Your task to perform on an android device: Open Reddit.com Image 0: 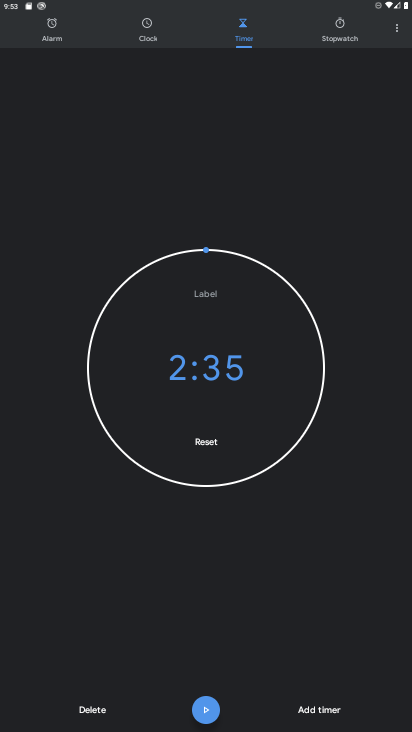
Step 0: press home button
Your task to perform on an android device: Open Reddit.com Image 1: 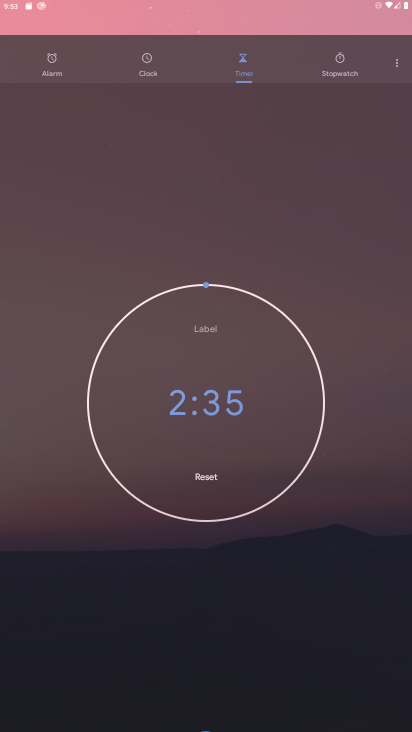
Step 1: drag from (201, 618) to (282, 144)
Your task to perform on an android device: Open Reddit.com Image 2: 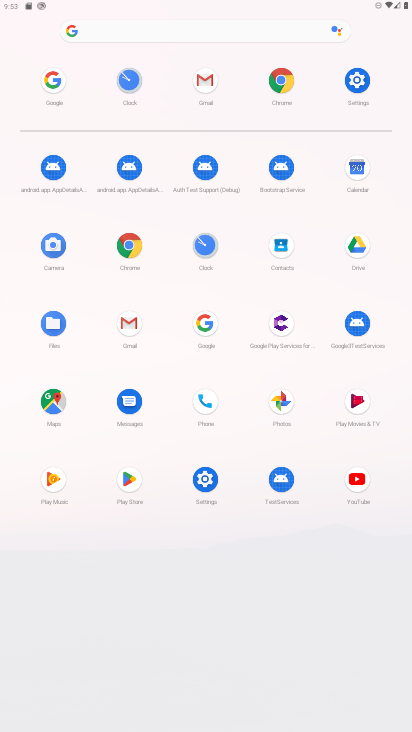
Step 2: click (170, 28)
Your task to perform on an android device: Open Reddit.com Image 3: 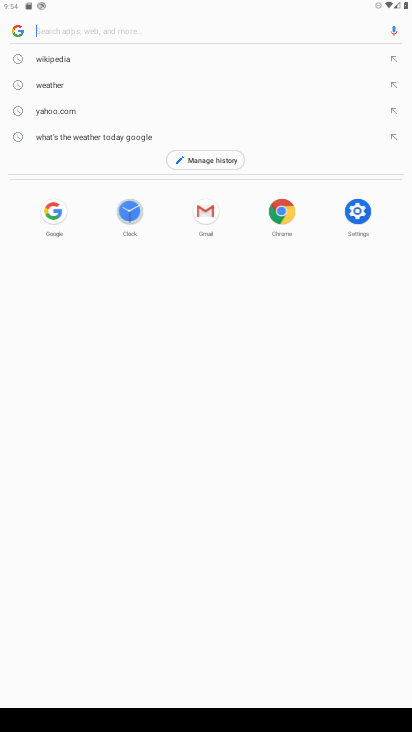
Step 3: type "Reddit.com"
Your task to perform on an android device: Open Reddit.com Image 4: 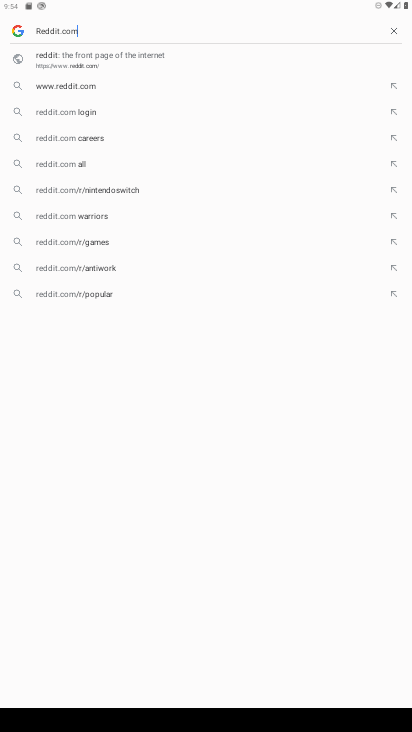
Step 4: click (68, 84)
Your task to perform on an android device: Open Reddit.com Image 5: 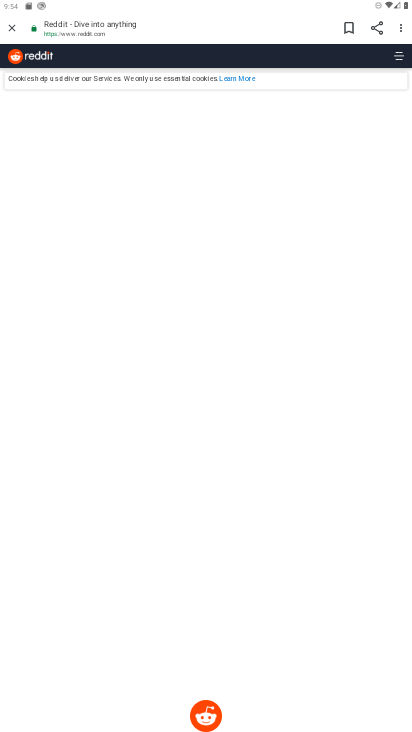
Step 5: task complete